Your task to perform on an android device: set default search engine in the chrome app Image 0: 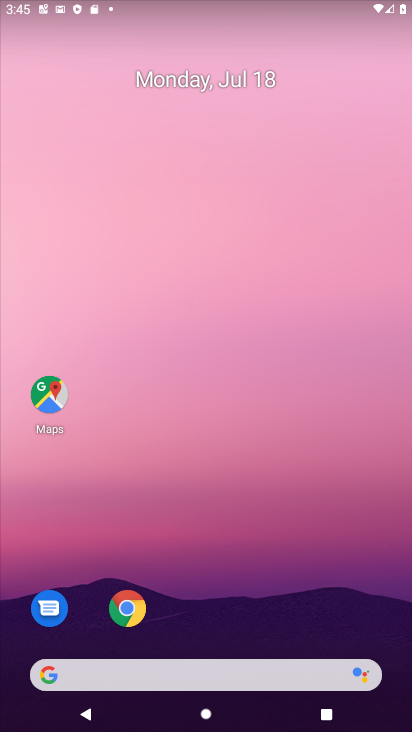
Step 0: drag from (273, 472) to (405, 63)
Your task to perform on an android device: set default search engine in the chrome app Image 1: 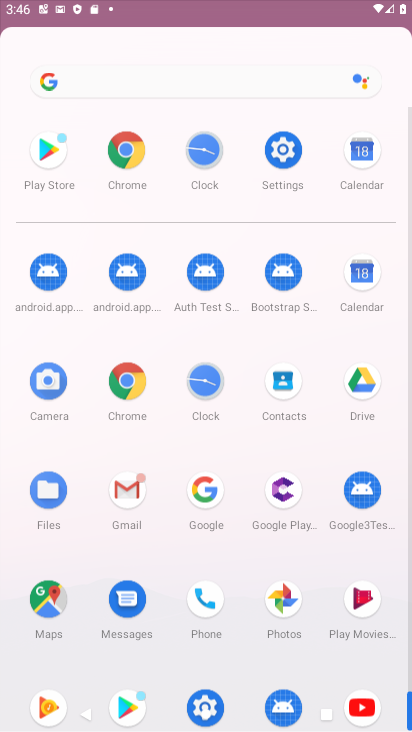
Step 1: drag from (335, 530) to (367, 219)
Your task to perform on an android device: set default search engine in the chrome app Image 2: 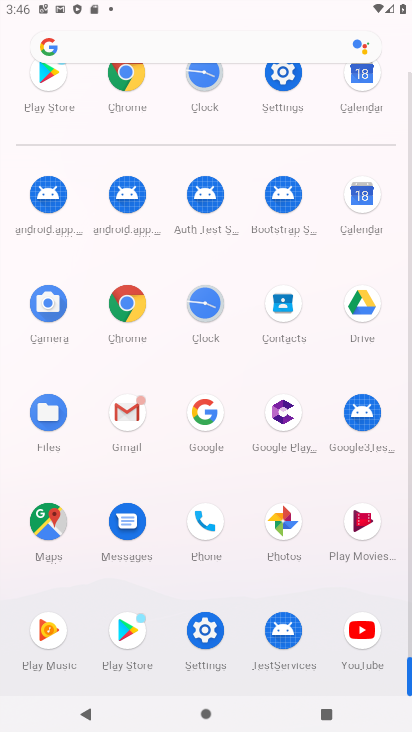
Step 2: click (133, 302)
Your task to perform on an android device: set default search engine in the chrome app Image 3: 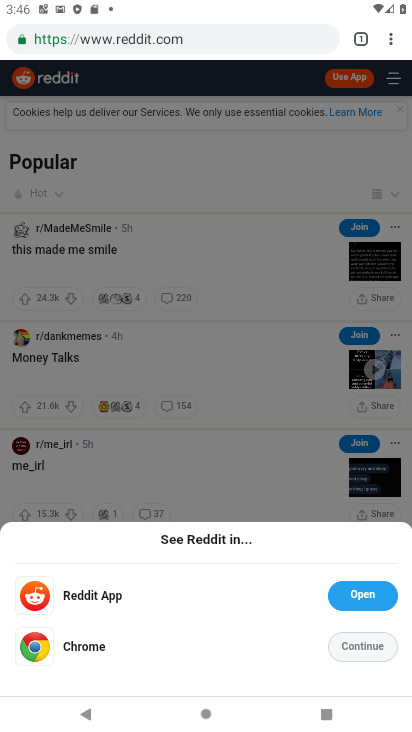
Step 3: click (391, 41)
Your task to perform on an android device: set default search engine in the chrome app Image 4: 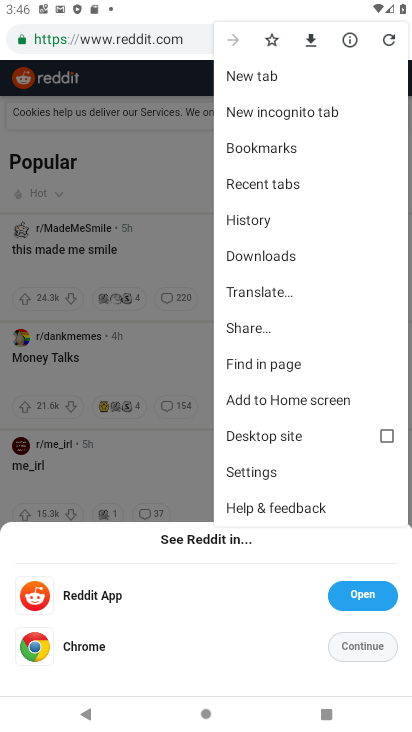
Step 4: click (247, 472)
Your task to perform on an android device: set default search engine in the chrome app Image 5: 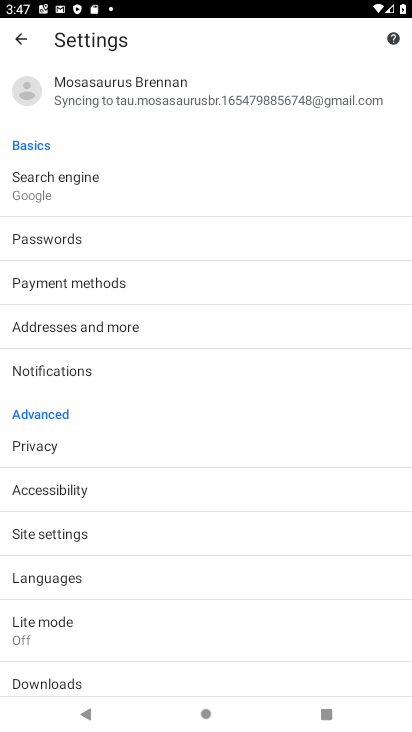
Step 5: drag from (218, 584) to (248, 385)
Your task to perform on an android device: set default search engine in the chrome app Image 6: 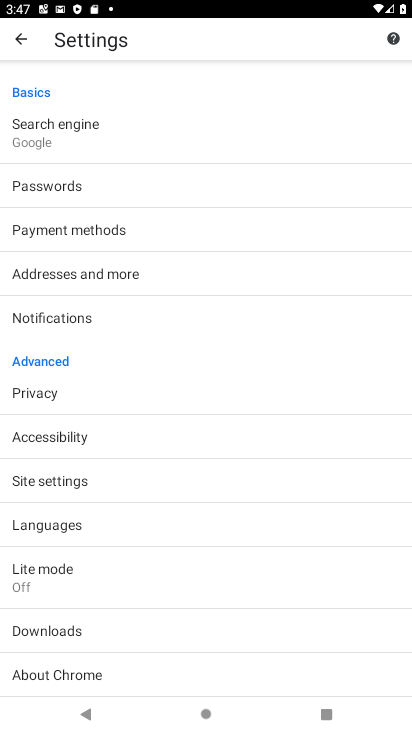
Step 6: click (94, 132)
Your task to perform on an android device: set default search engine in the chrome app Image 7: 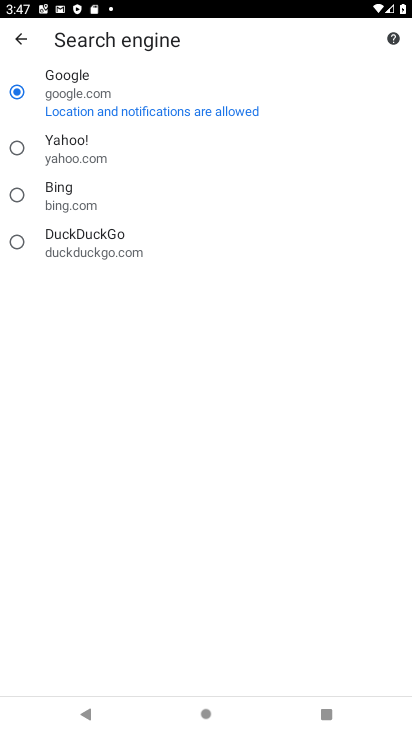
Step 7: task complete